Your task to perform on an android device: turn on location history Image 0: 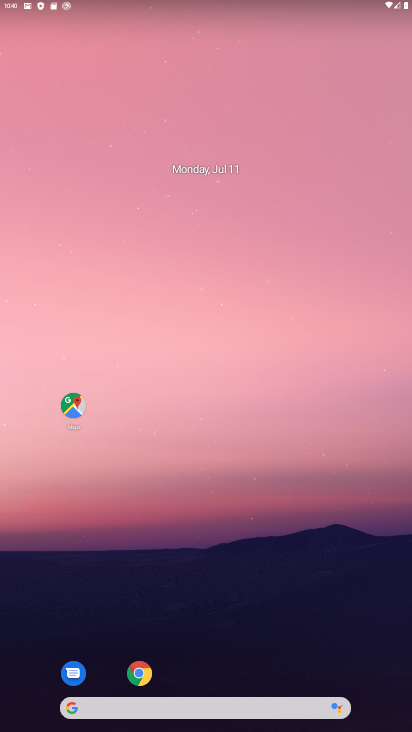
Step 0: drag from (193, 681) to (282, 183)
Your task to perform on an android device: turn on location history Image 1: 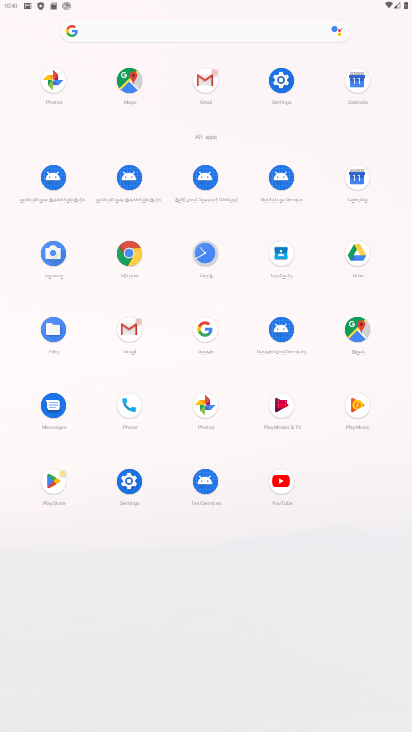
Step 1: click (131, 482)
Your task to perform on an android device: turn on location history Image 2: 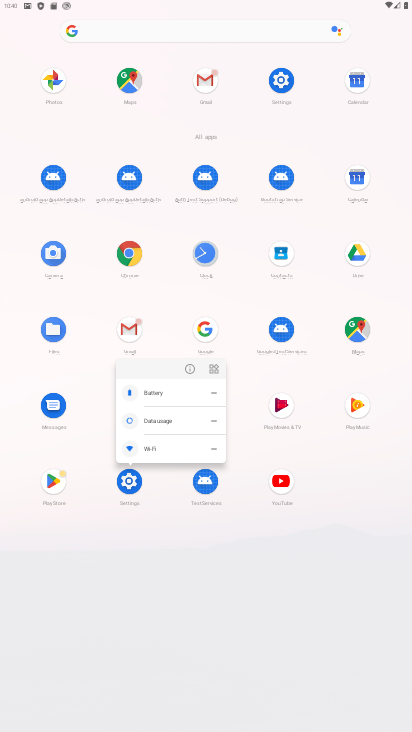
Step 2: click (127, 480)
Your task to perform on an android device: turn on location history Image 3: 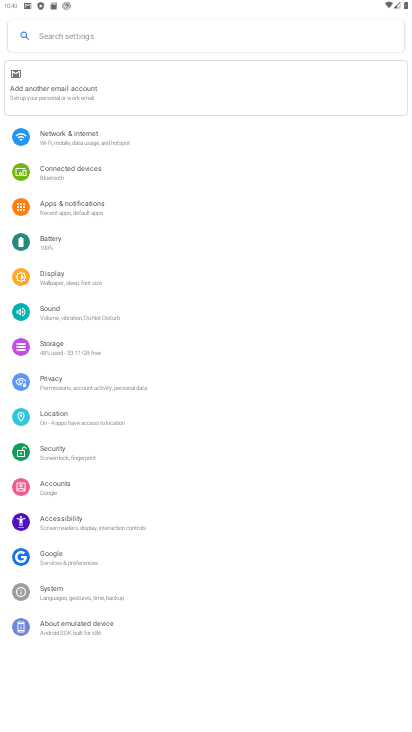
Step 3: click (88, 421)
Your task to perform on an android device: turn on location history Image 4: 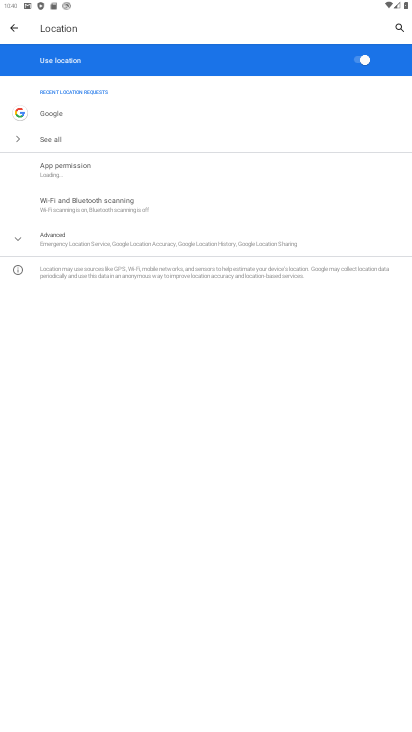
Step 4: click (106, 246)
Your task to perform on an android device: turn on location history Image 5: 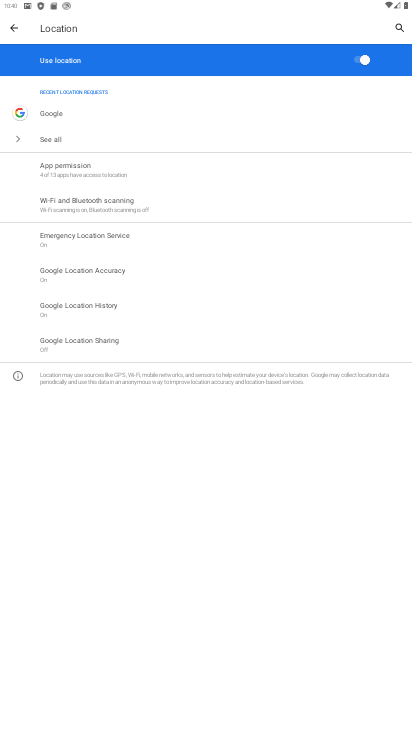
Step 5: click (104, 306)
Your task to perform on an android device: turn on location history Image 6: 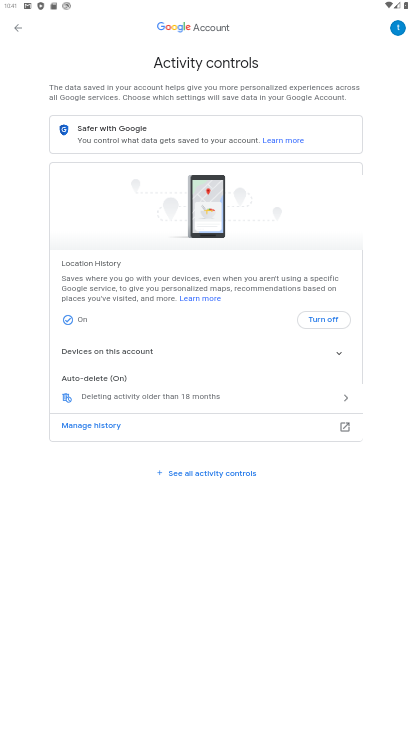
Step 6: task complete